Your task to perform on an android device: When is my next appointment? Image 0: 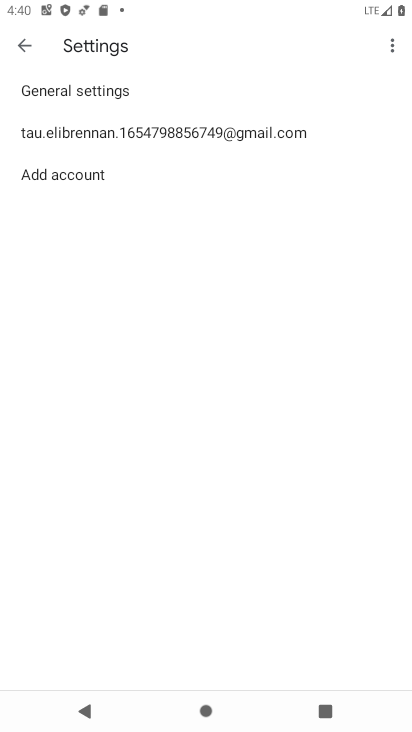
Step 0: press home button
Your task to perform on an android device: When is my next appointment? Image 1: 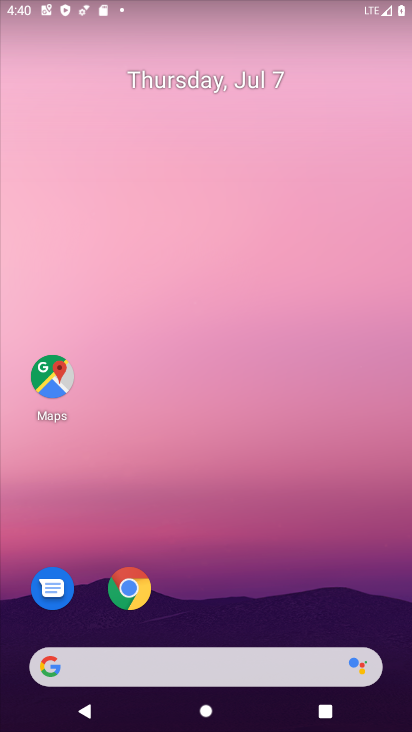
Step 1: drag from (172, 691) to (229, 146)
Your task to perform on an android device: When is my next appointment? Image 2: 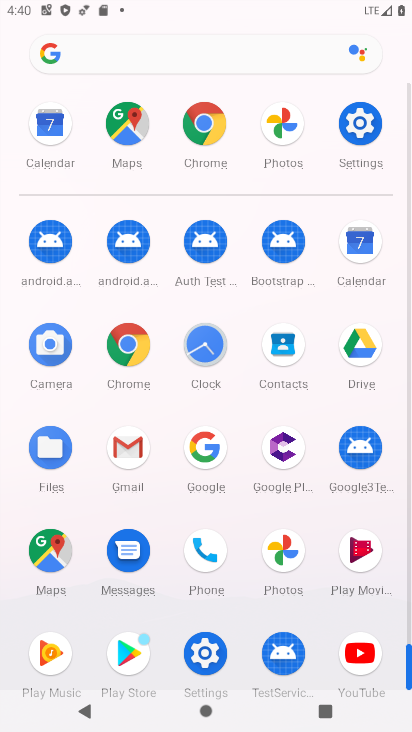
Step 2: click (357, 247)
Your task to perform on an android device: When is my next appointment? Image 3: 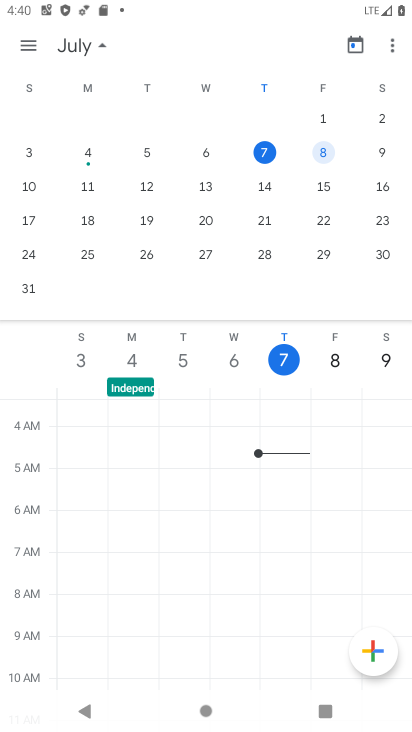
Step 3: click (324, 151)
Your task to perform on an android device: When is my next appointment? Image 4: 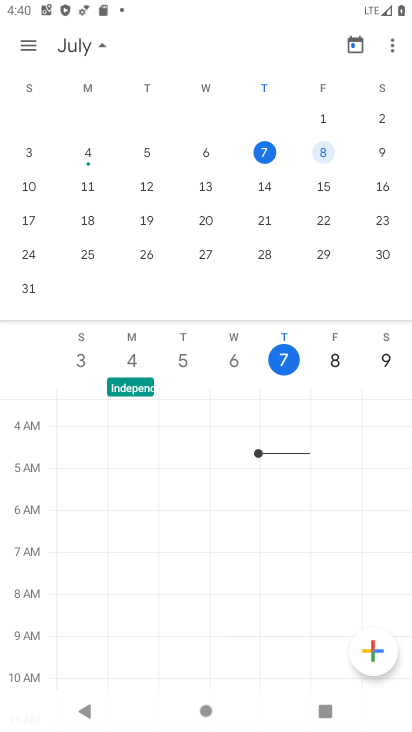
Step 4: task complete